Your task to perform on an android device: toggle sleep mode Image 0: 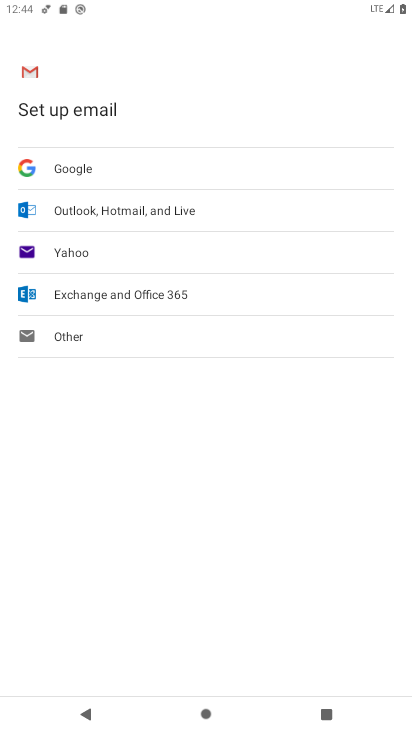
Step 0: press home button
Your task to perform on an android device: toggle sleep mode Image 1: 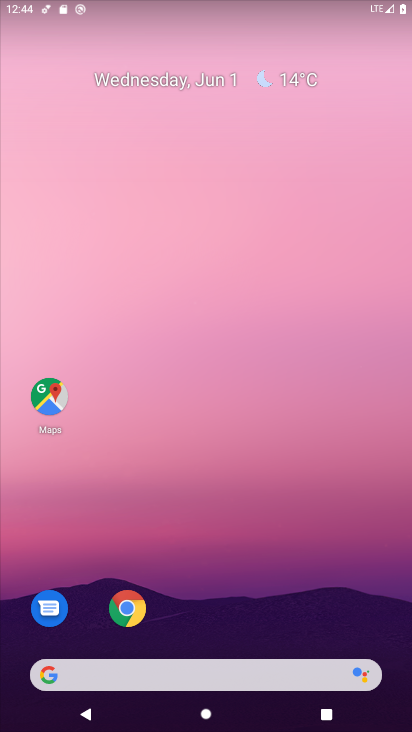
Step 1: drag from (232, 600) to (244, 63)
Your task to perform on an android device: toggle sleep mode Image 2: 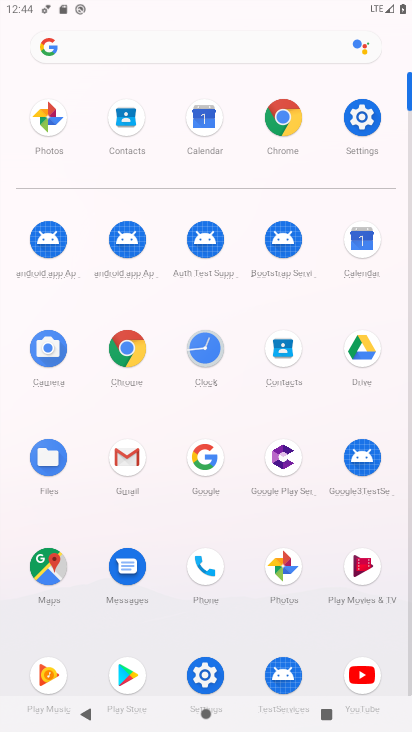
Step 2: click (363, 130)
Your task to perform on an android device: toggle sleep mode Image 3: 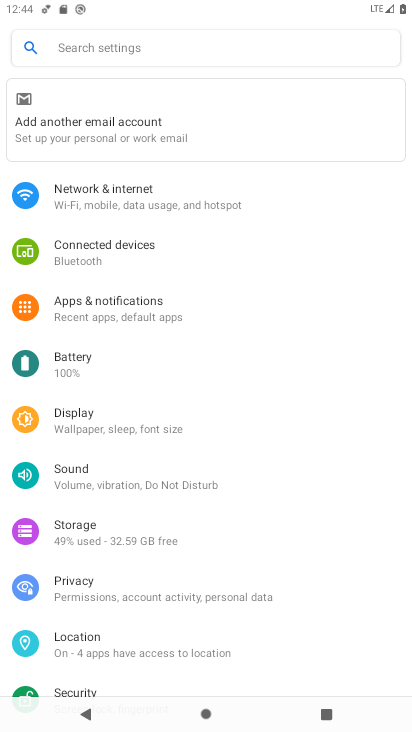
Step 3: click (219, 37)
Your task to perform on an android device: toggle sleep mode Image 4: 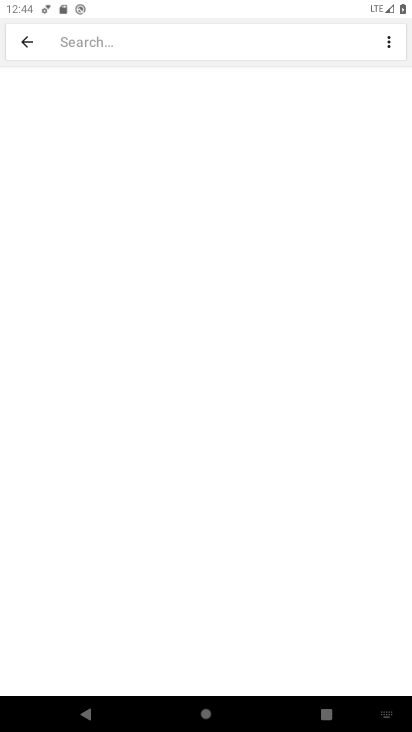
Step 4: type "sleep mode"
Your task to perform on an android device: toggle sleep mode Image 5: 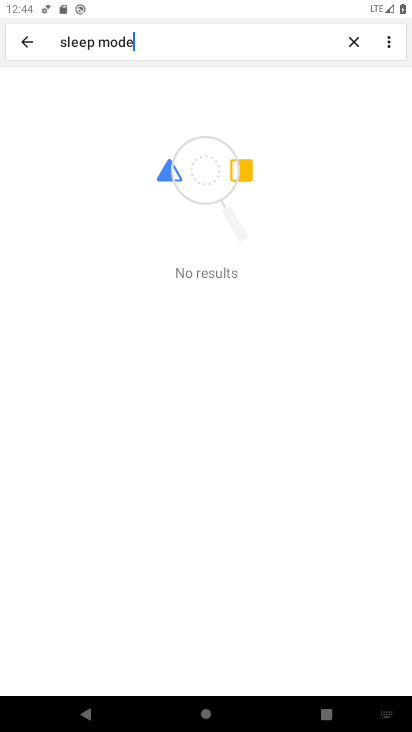
Step 5: task complete